Your task to perform on an android device: see creations saved in the google photos Image 0: 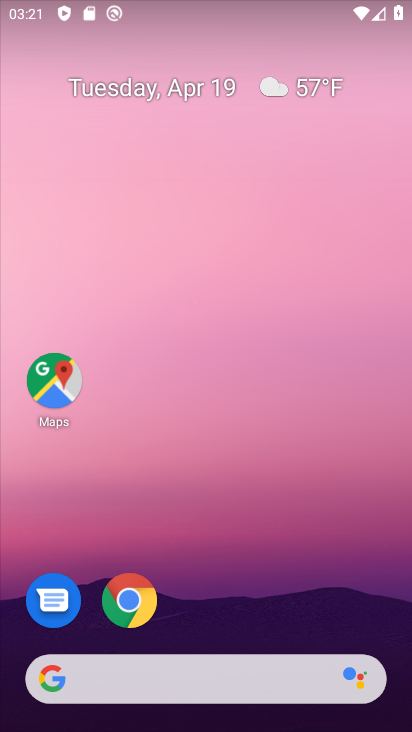
Step 0: click (311, 194)
Your task to perform on an android device: see creations saved in the google photos Image 1: 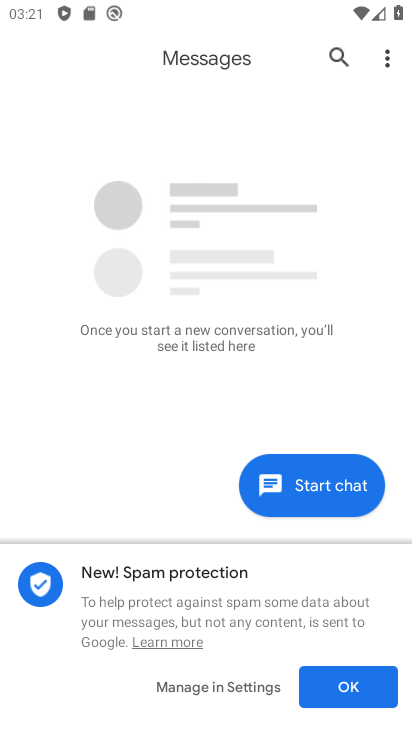
Step 1: press home button
Your task to perform on an android device: see creations saved in the google photos Image 2: 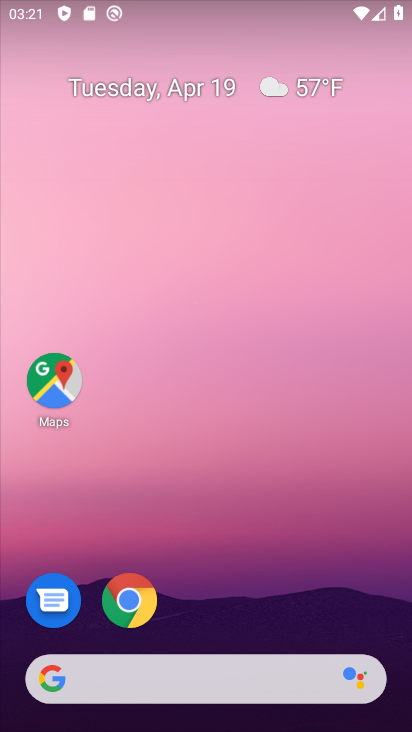
Step 2: drag from (292, 590) to (248, 209)
Your task to perform on an android device: see creations saved in the google photos Image 3: 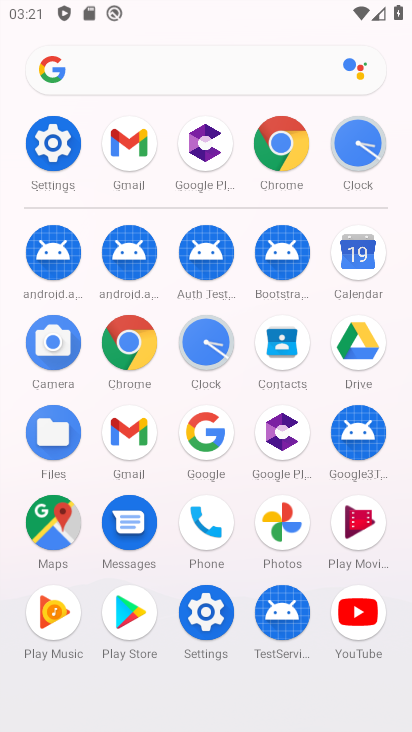
Step 3: click (292, 537)
Your task to perform on an android device: see creations saved in the google photos Image 4: 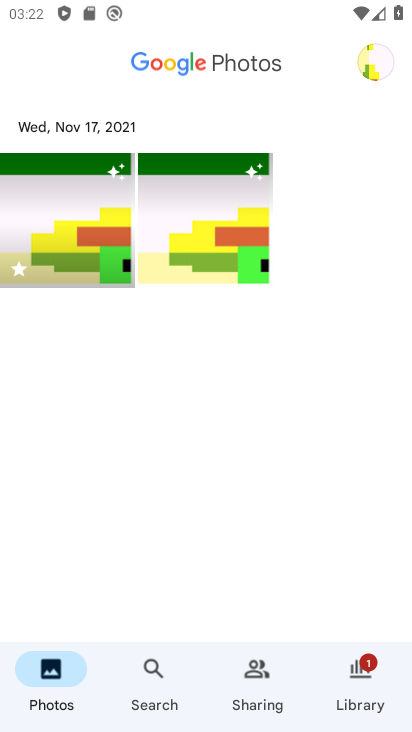
Step 4: click (154, 687)
Your task to perform on an android device: see creations saved in the google photos Image 5: 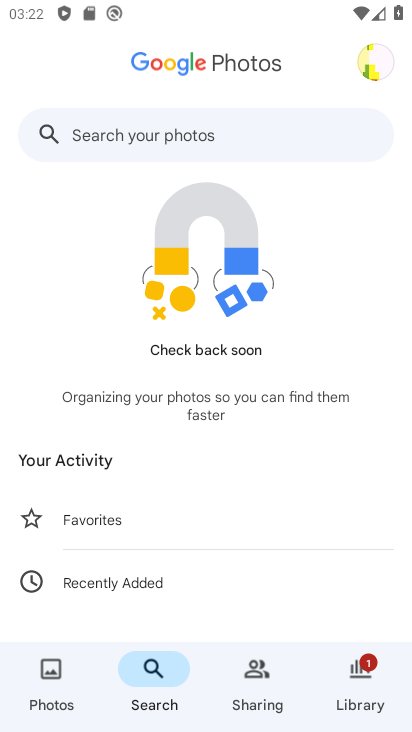
Step 5: drag from (182, 589) to (181, 238)
Your task to perform on an android device: see creations saved in the google photos Image 6: 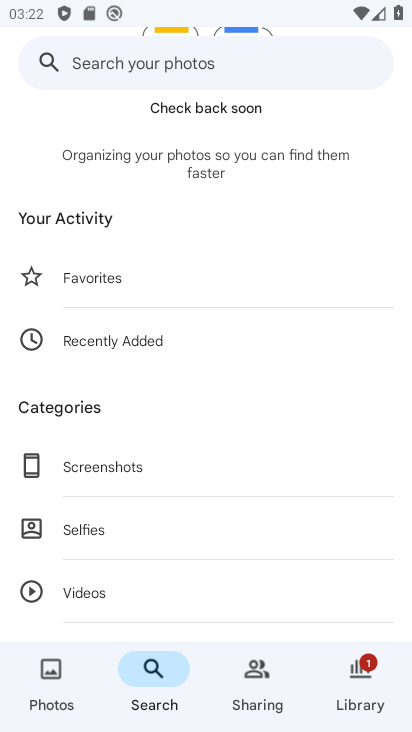
Step 6: drag from (199, 521) to (229, 181)
Your task to perform on an android device: see creations saved in the google photos Image 7: 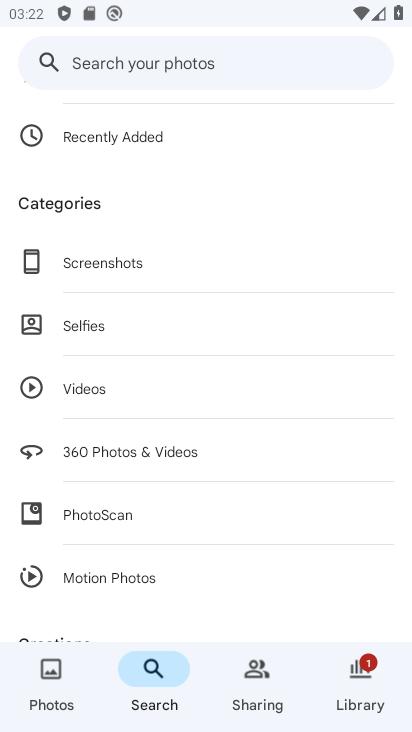
Step 7: drag from (231, 551) to (240, 176)
Your task to perform on an android device: see creations saved in the google photos Image 8: 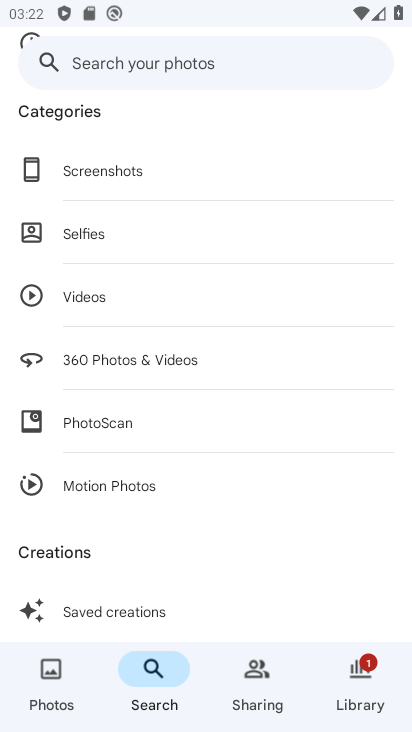
Step 8: click (219, 608)
Your task to perform on an android device: see creations saved in the google photos Image 9: 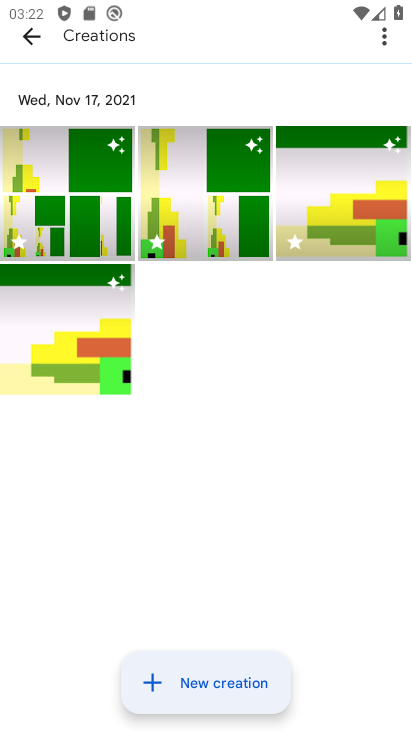
Step 9: task complete